Your task to perform on an android device: toggle notification dots Image 0: 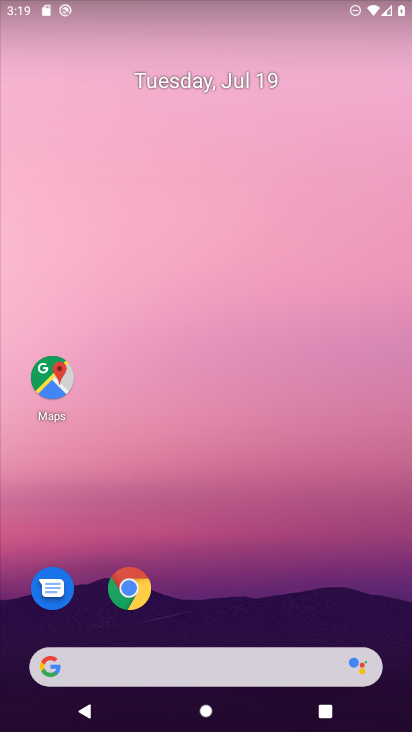
Step 0: drag from (190, 609) to (237, 112)
Your task to perform on an android device: toggle notification dots Image 1: 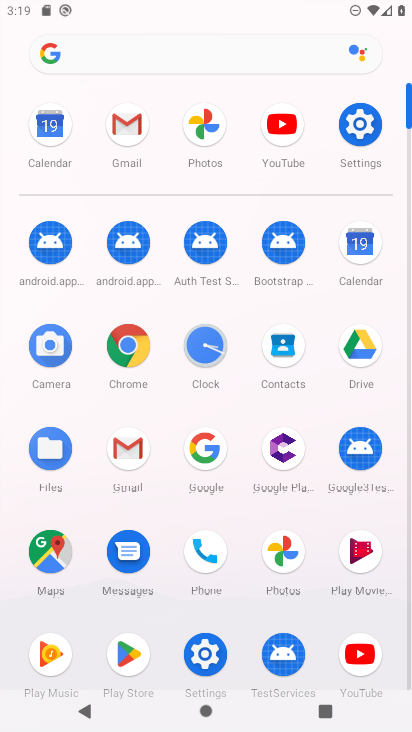
Step 1: click (365, 127)
Your task to perform on an android device: toggle notification dots Image 2: 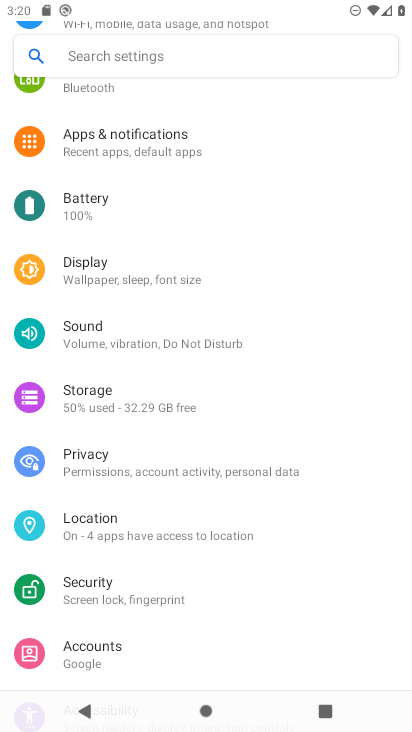
Step 2: click (114, 126)
Your task to perform on an android device: toggle notification dots Image 3: 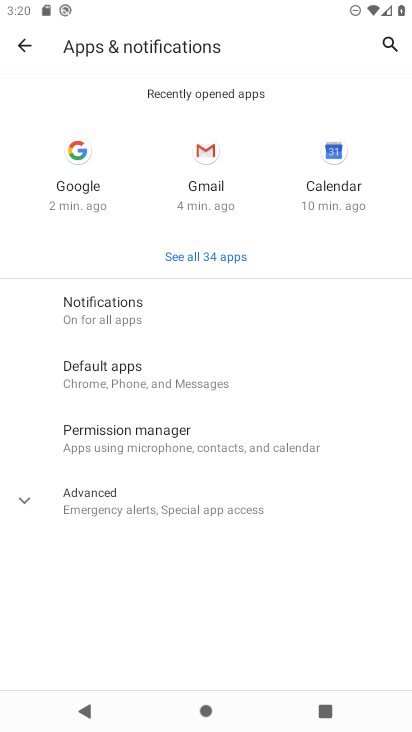
Step 3: click (65, 509)
Your task to perform on an android device: toggle notification dots Image 4: 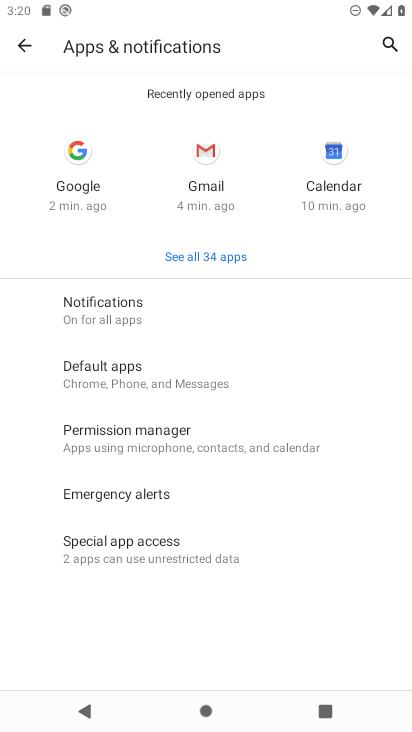
Step 4: click (95, 311)
Your task to perform on an android device: toggle notification dots Image 5: 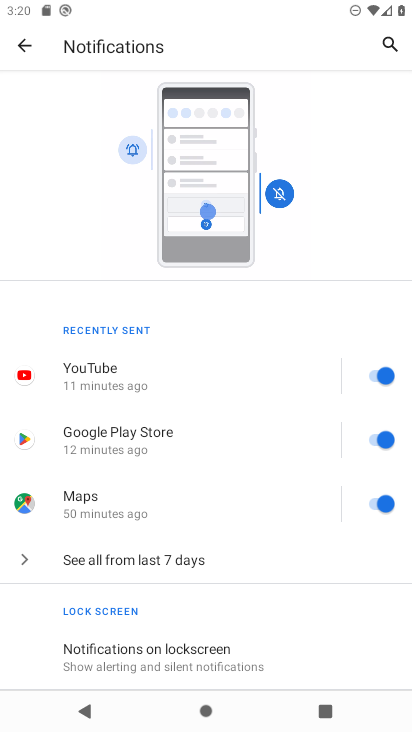
Step 5: drag from (131, 536) to (142, 393)
Your task to perform on an android device: toggle notification dots Image 6: 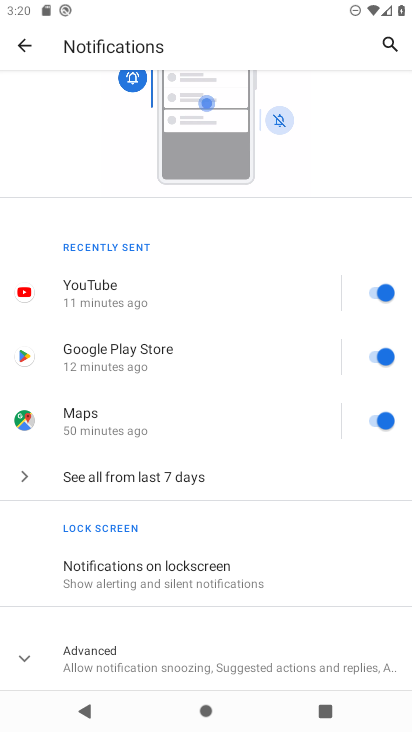
Step 6: click (136, 667)
Your task to perform on an android device: toggle notification dots Image 7: 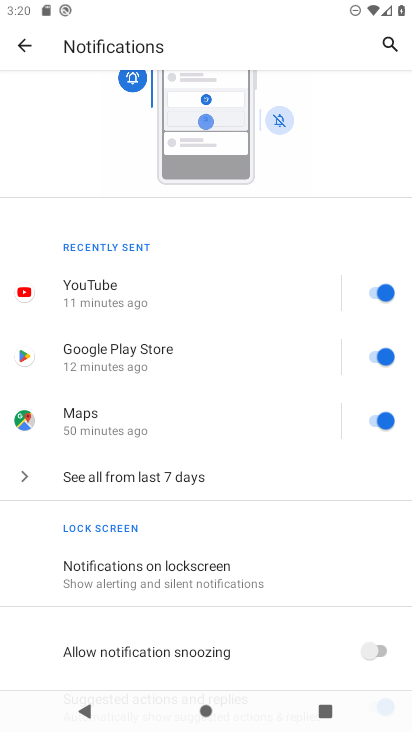
Step 7: drag from (157, 624) to (206, 407)
Your task to perform on an android device: toggle notification dots Image 8: 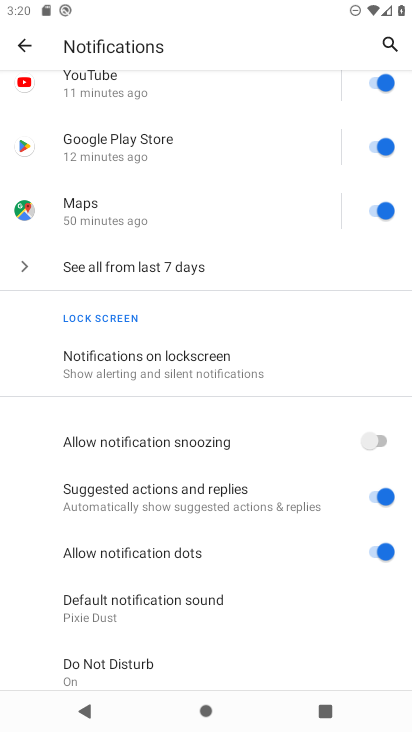
Step 8: click (364, 549)
Your task to perform on an android device: toggle notification dots Image 9: 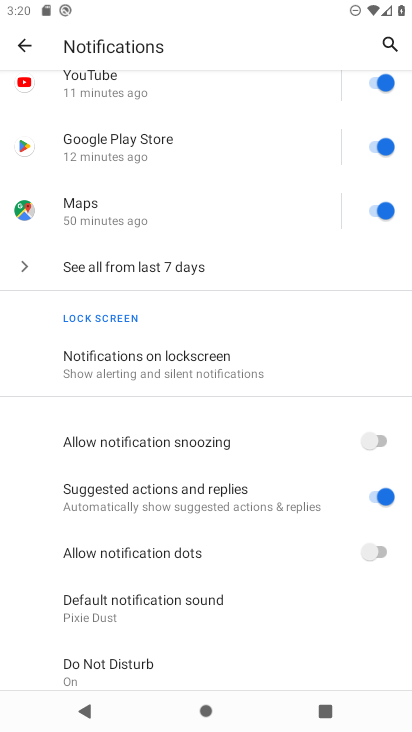
Step 9: task complete